Your task to perform on an android device: check google app version Image 0: 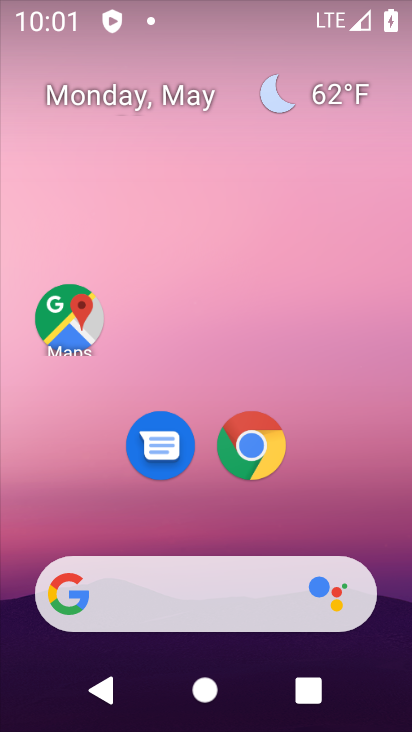
Step 0: drag from (387, 636) to (261, 116)
Your task to perform on an android device: check google app version Image 1: 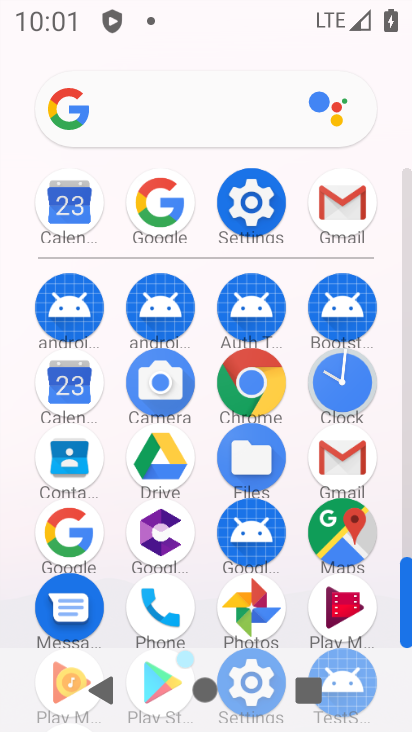
Step 1: click (45, 553)
Your task to perform on an android device: check google app version Image 2: 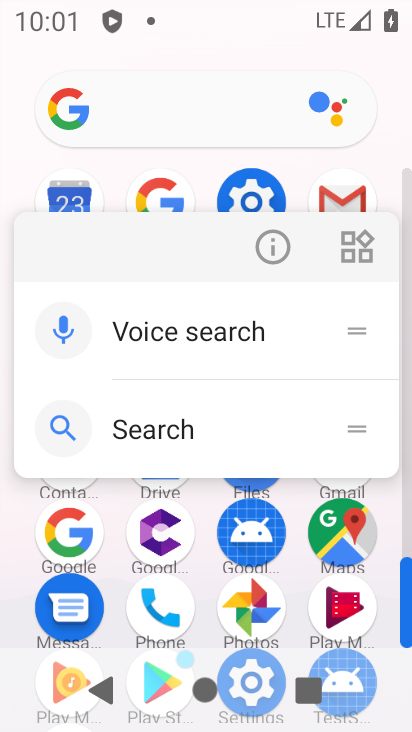
Step 2: click (264, 248)
Your task to perform on an android device: check google app version Image 3: 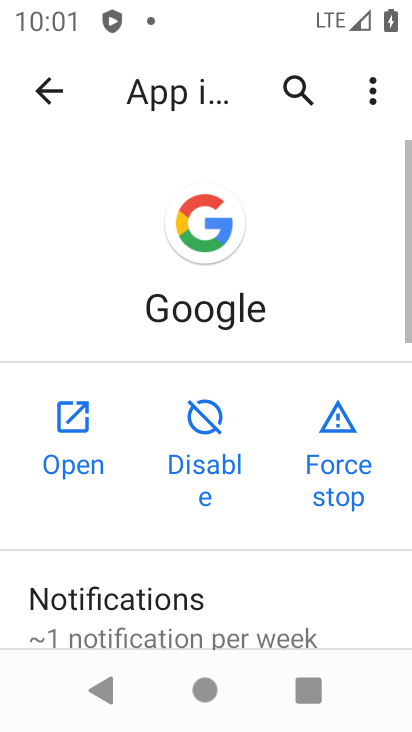
Step 3: drag from (281, 579) to (270, 27)
Your task to perform on an android device: check google app version Image 4: 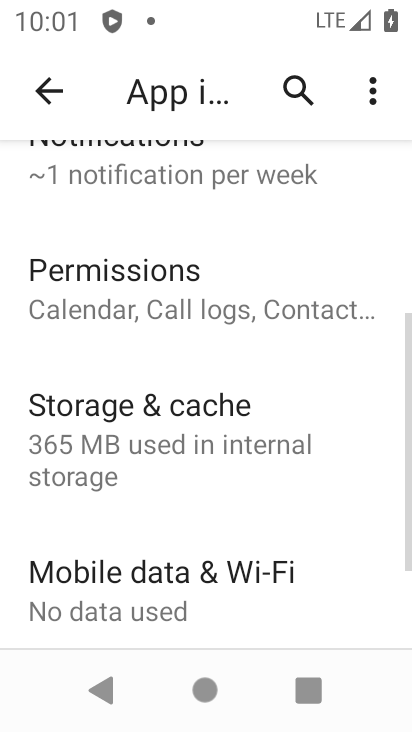
Step 4: drag from (241, 544) to (262, 67)
Your task to perform on an android device: check google app version Image 5: 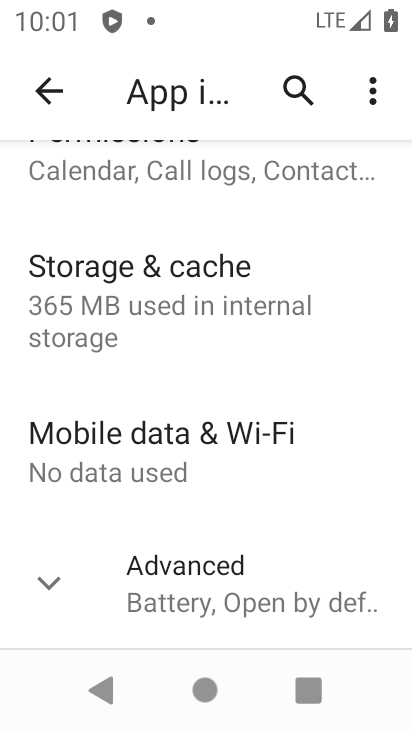
Step 5: click (170, 598)
Your task to perform on an android device: check google app version Image 6: 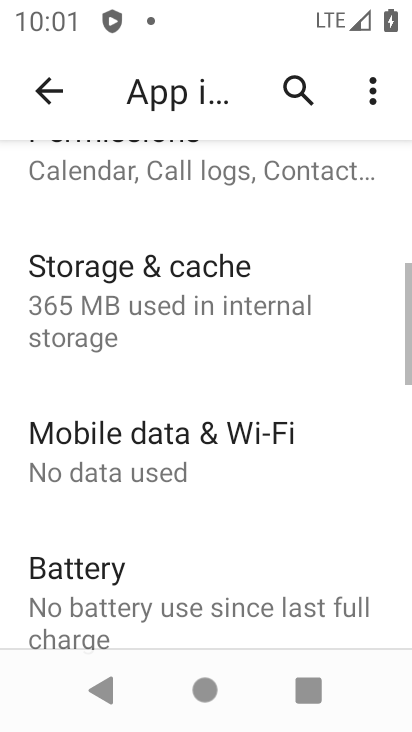
Step 6: task complete